Your task to perform on an android device: check battery use Image 0: 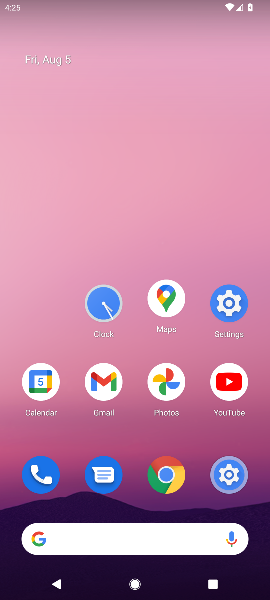
Step 0: click (225, 472)
Your task to perform on an android device: check battery use Image 1: 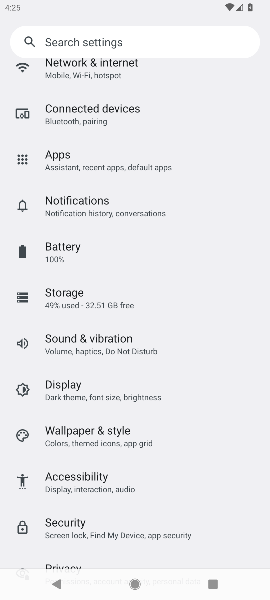
Step 1: click (57, 245)
Your task to perform on an android device: check battery use Image 2: 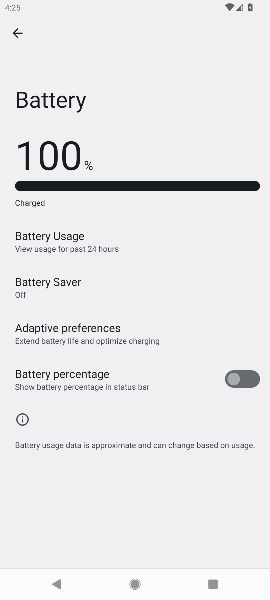
Step 2: click (71, 235)
Your task to perform on an android device: check battery use Image 3: 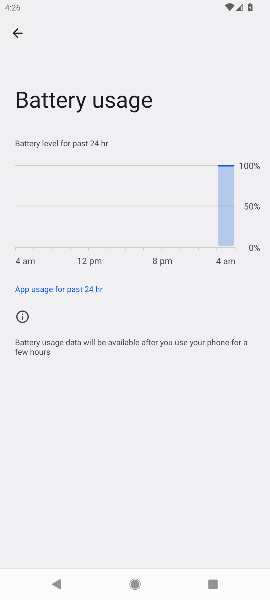
Step 3: task complete